Your task to perform on an android device: change text size in settings app Image 0: 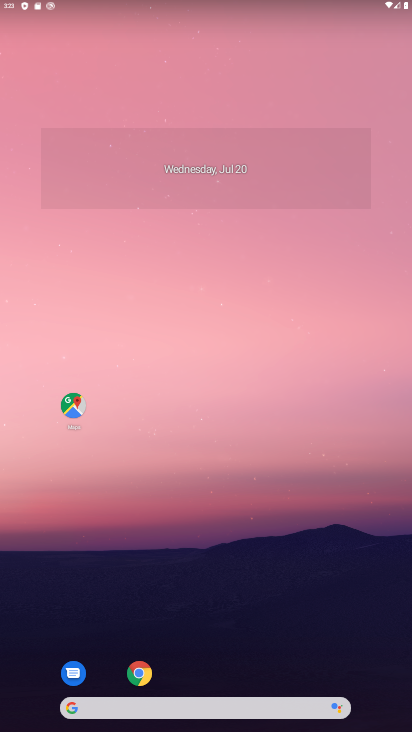
Step 0: drag from (252, 581) to (229, 214)
Your task to perform on an android device: change text size in settings app Image 1: 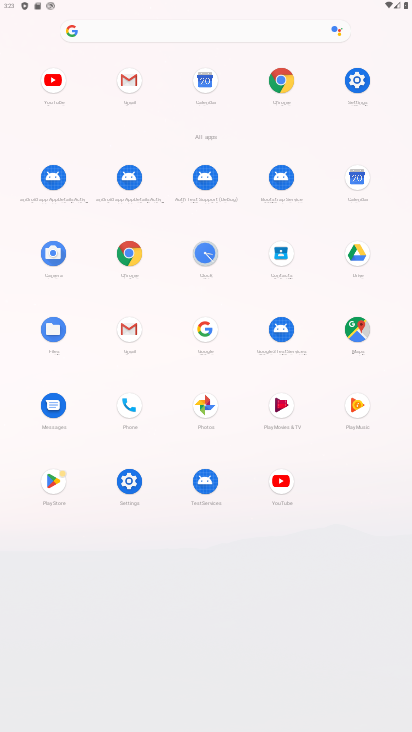
Step 1: click (130, 479)
Your task to perform on an android device: change text size in settings app Image 2: 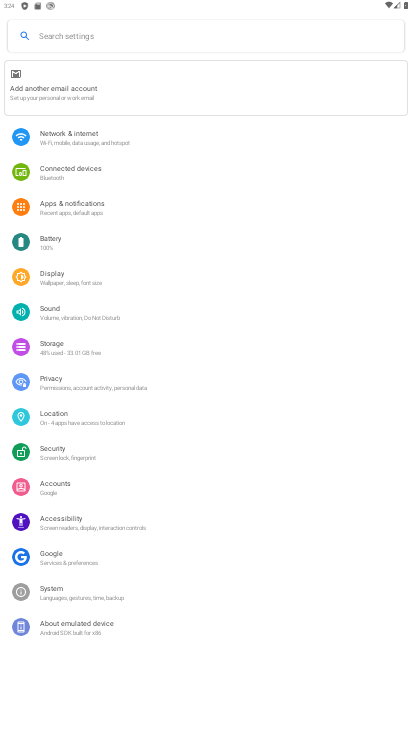
Step 2: task complete